Your task to perform on an android device: install app "Lyft - Rideshare, Bikes, Scooters & Transit" Image 0: 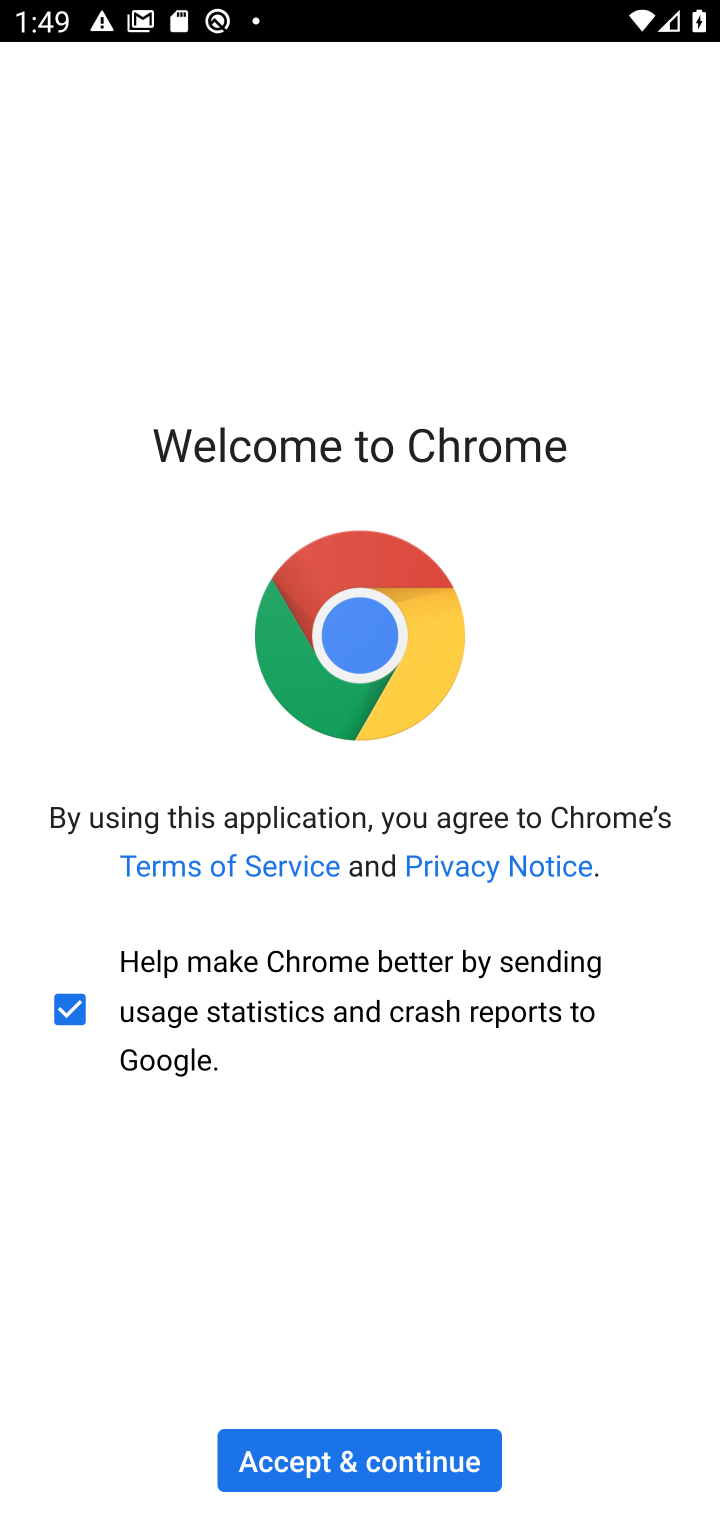
Step 0: press home button
Your task to perform on an android device: install app "Lyft - Rideshare, Bikes, Scooters & Transit" Image 1: 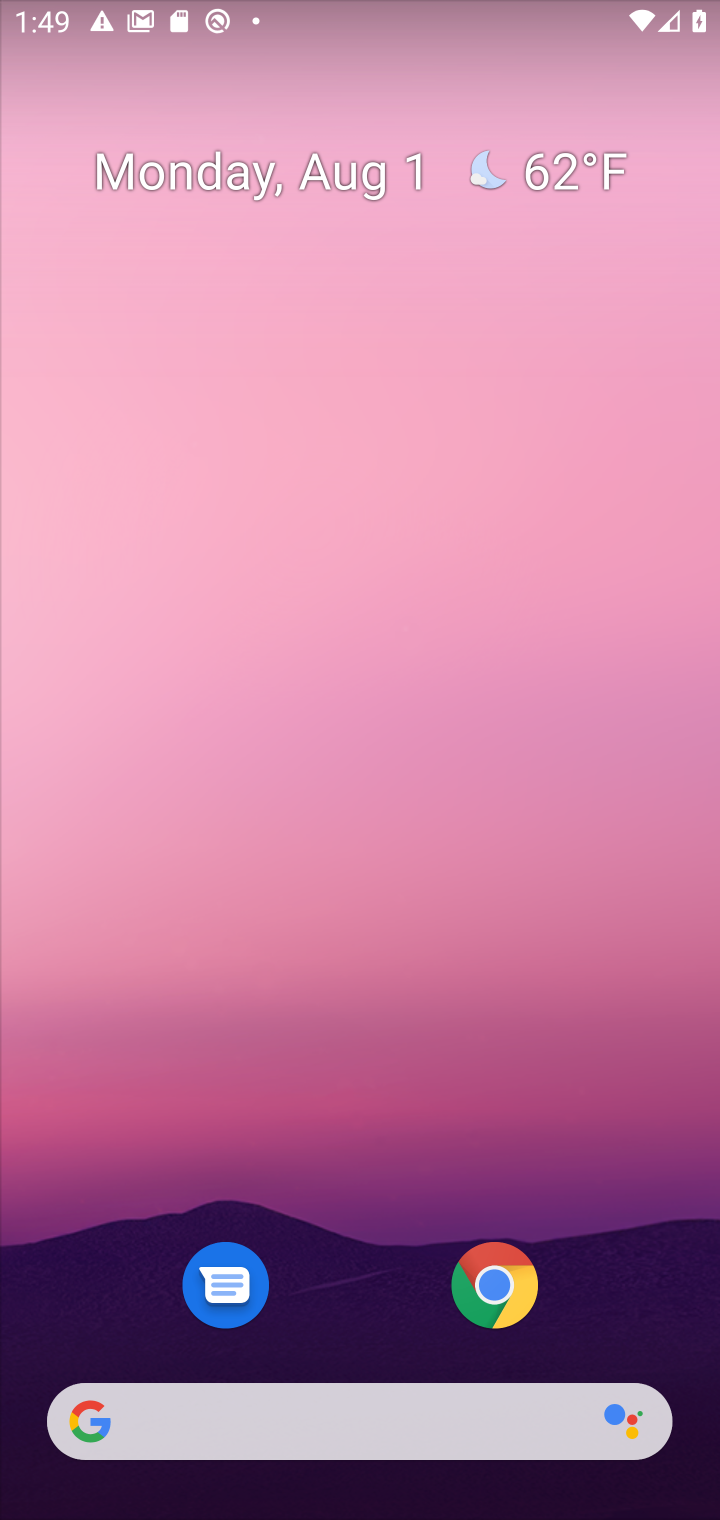
Step 1: drag from (398, 646) to (619, 0)
Your task to perform on an android device: install app "Lyft - Rideshare, Bikes, Scooters & Transit" Image 2: 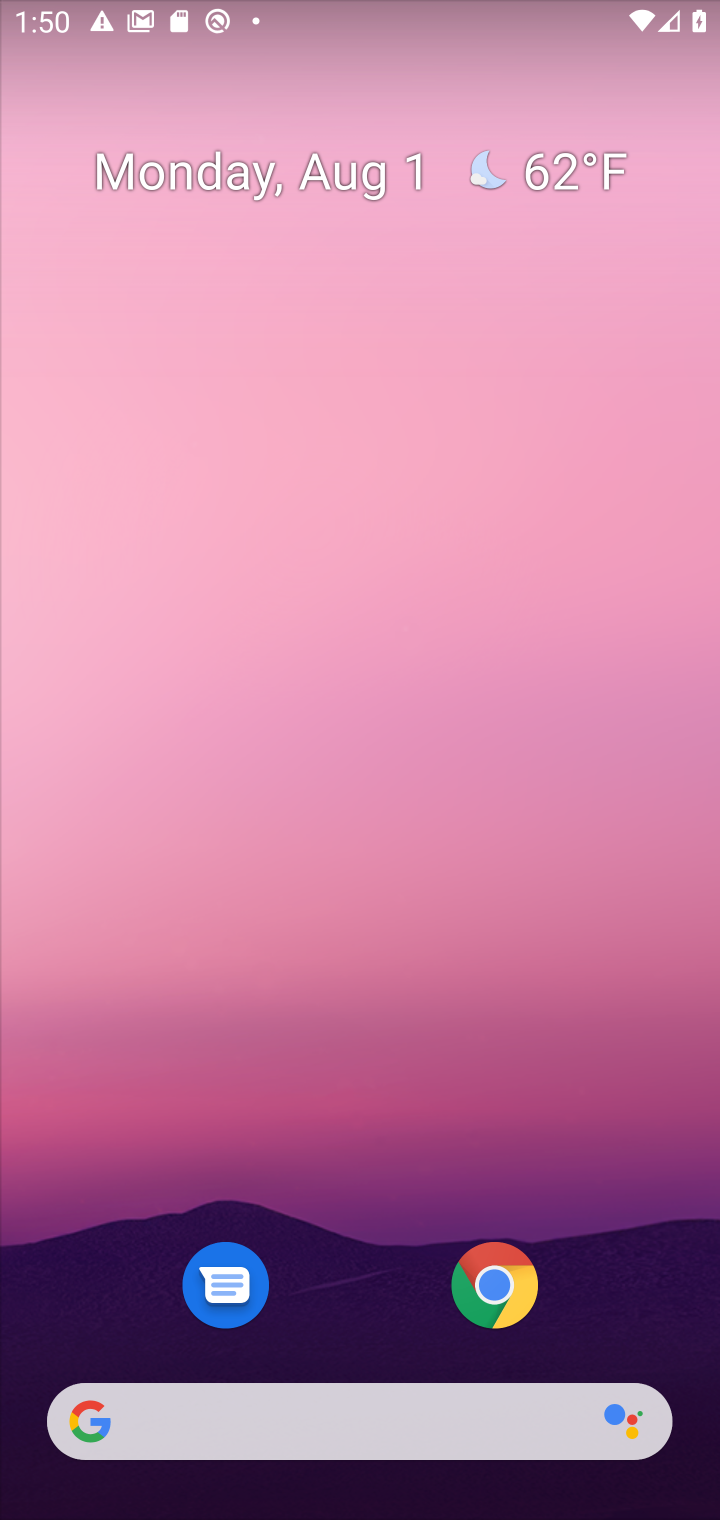
Step 2: drag from (327, 1355) to (384, 136)
Your task to perform on an android device: install app "Lyft - Rideshare, Bikes, Scooters & Transit" Image 3: 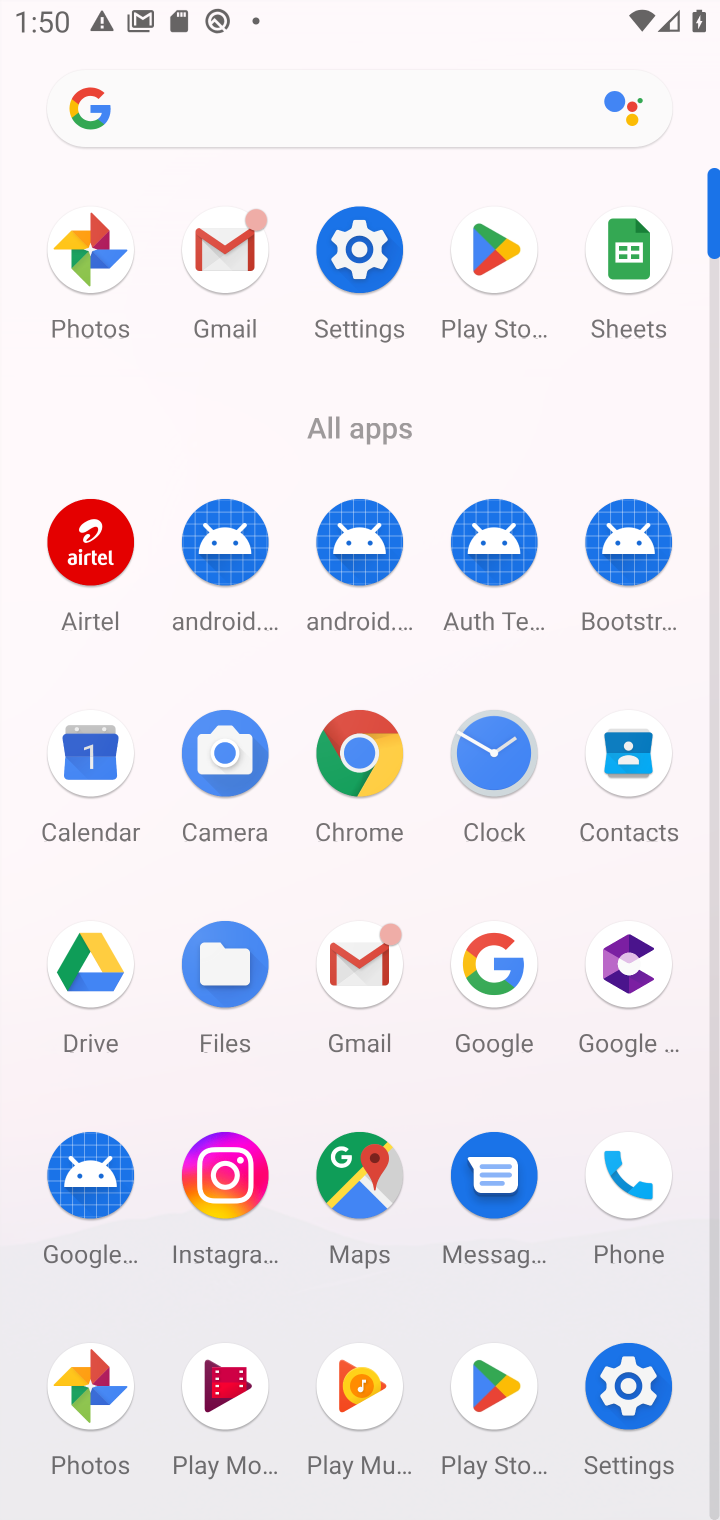
Step 3: click (485, 261)
Your task to perform on an android device: install app "Lyft - Rideshare, Bikes, Scooters & Transit" Image 4: 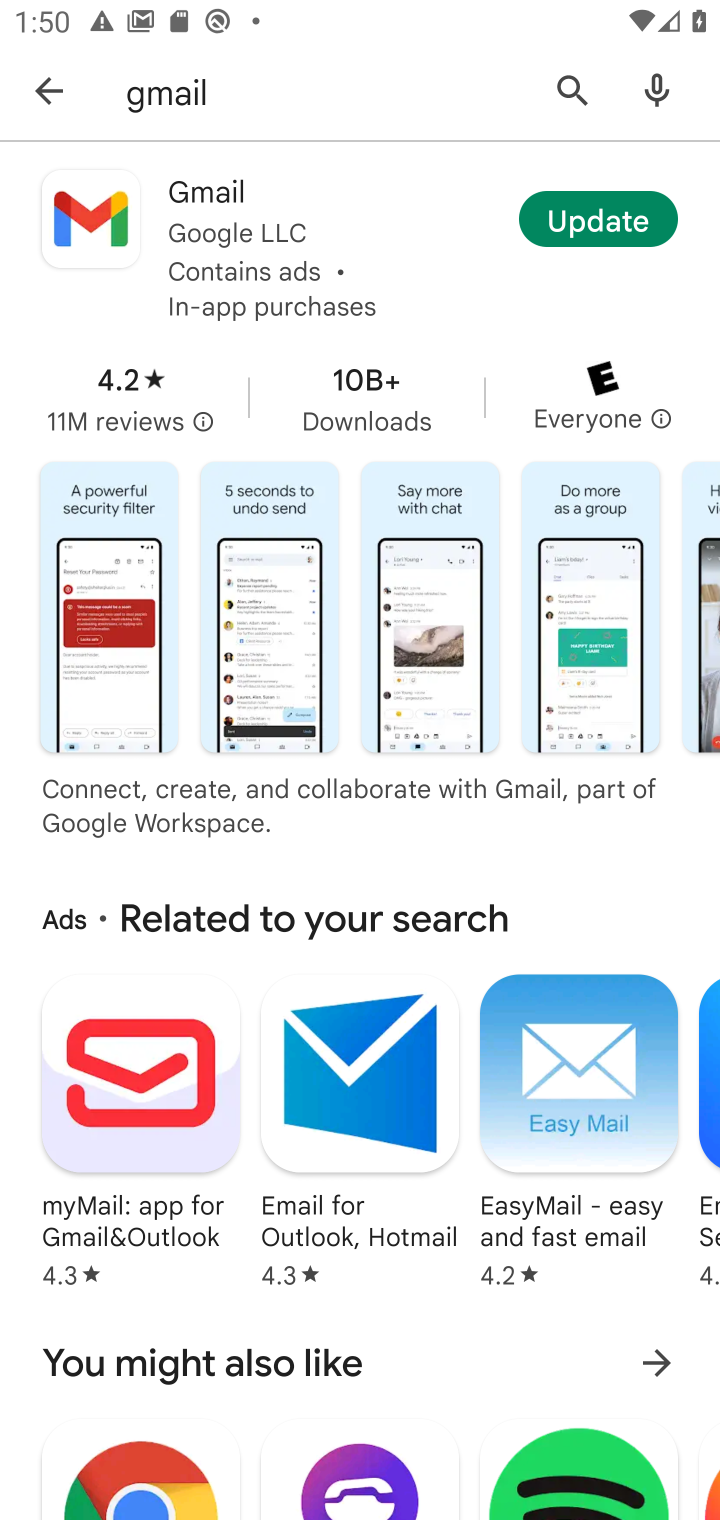
Step 4: click (563, 84)
Your task to perform on an android device: install app "Lyft - Rideshare, Bikes, Scooters & Transit" Image 5: 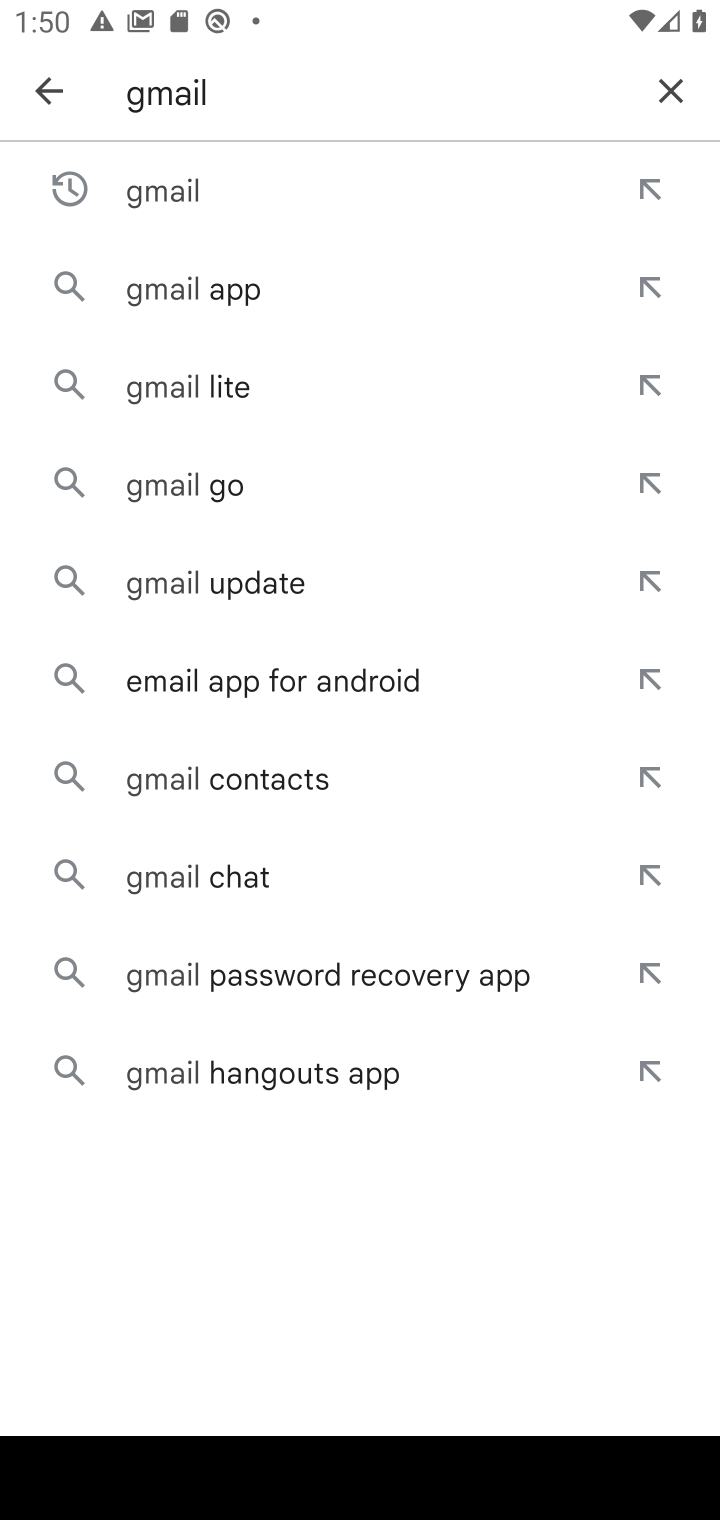
Step 5: click (675, 96)
Your task to perform on an android device: install app "Lyft - Rideshare, Bikes, Scooters & Transit" Image 6: 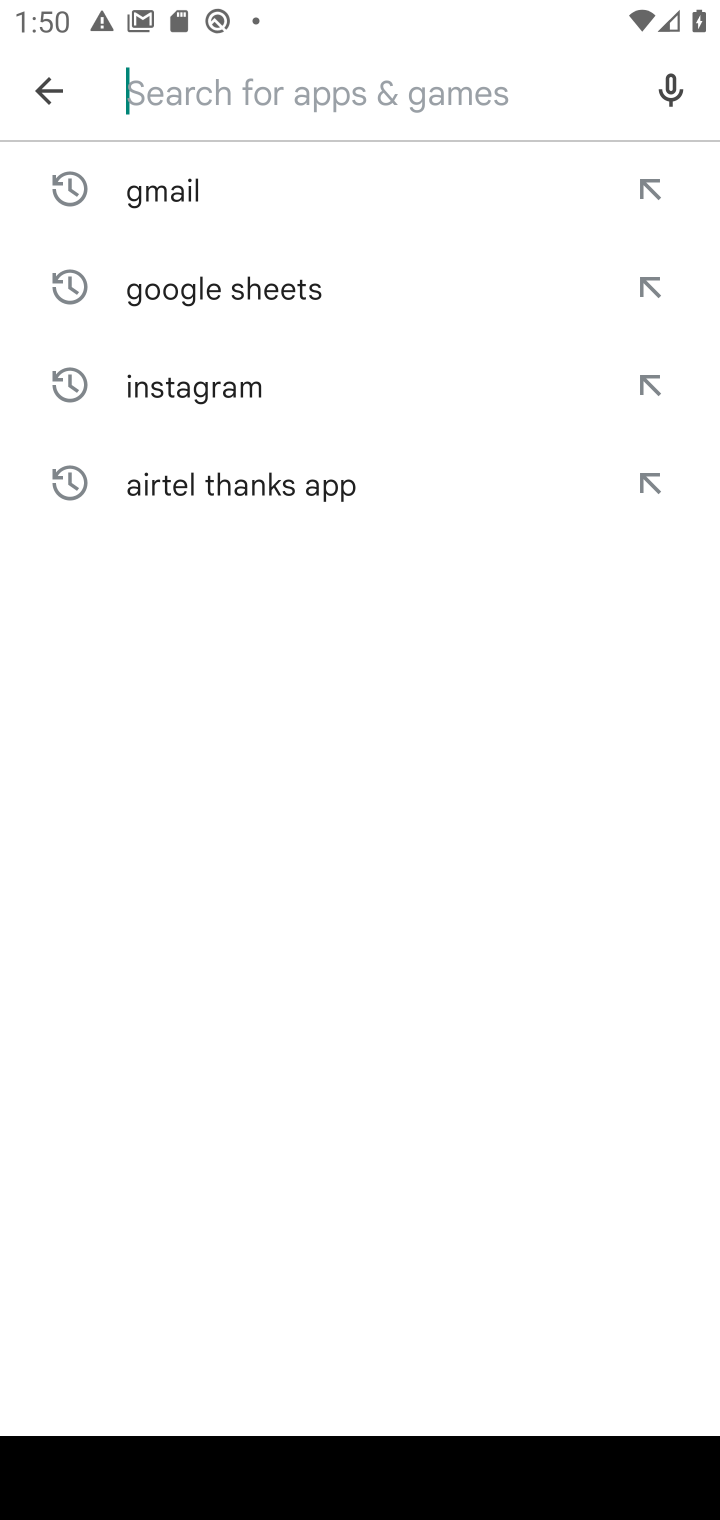
Step 6: type "Lyft - Rideshare, Bikes, Scooters & Transit"
Your task to perform on an android device: install app "Lyft - Rideshare, Bikes, Scooters & Transit" Image 7: 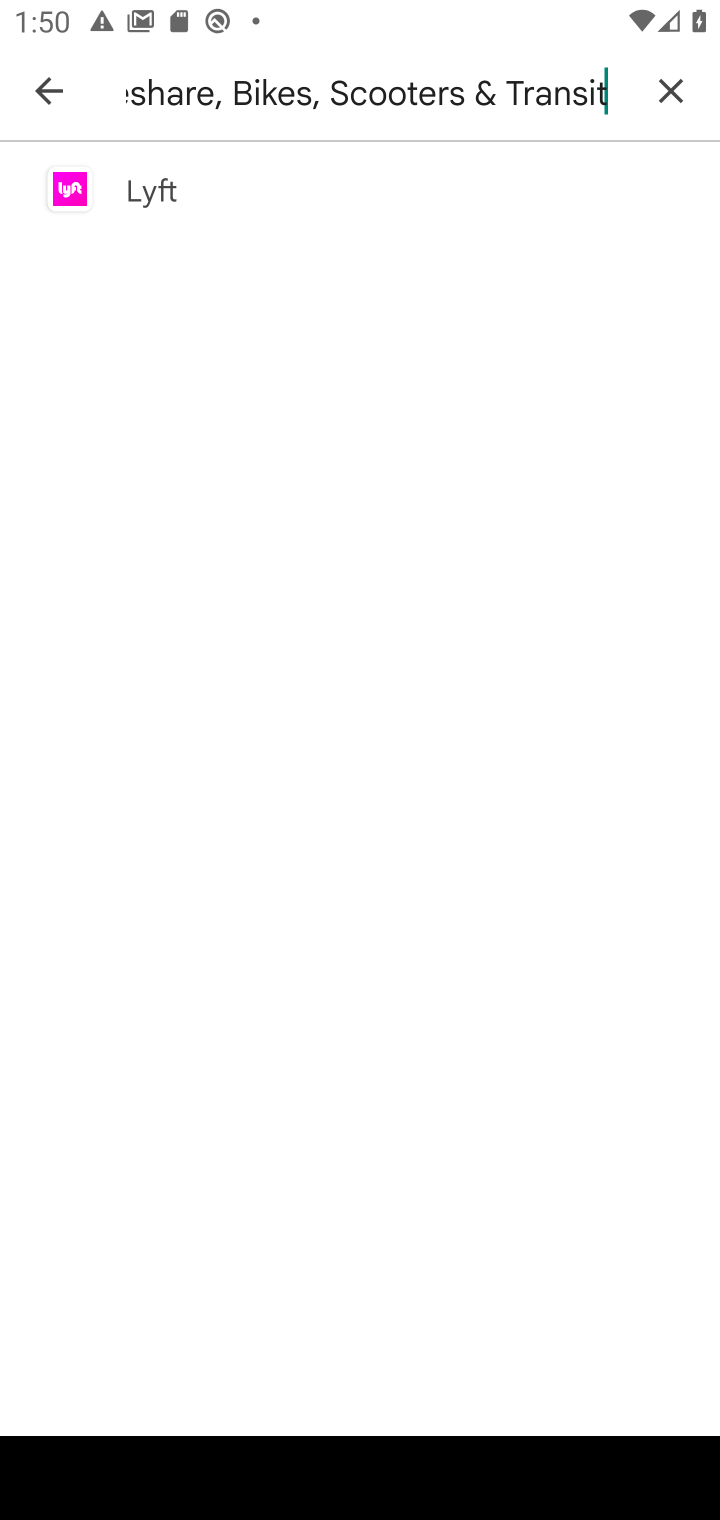
Step 7: click (132, 194)
Your task to perform on an android device: install app "Lyft - Rideshare, Bikes, Scooters & Transit" Image 8: 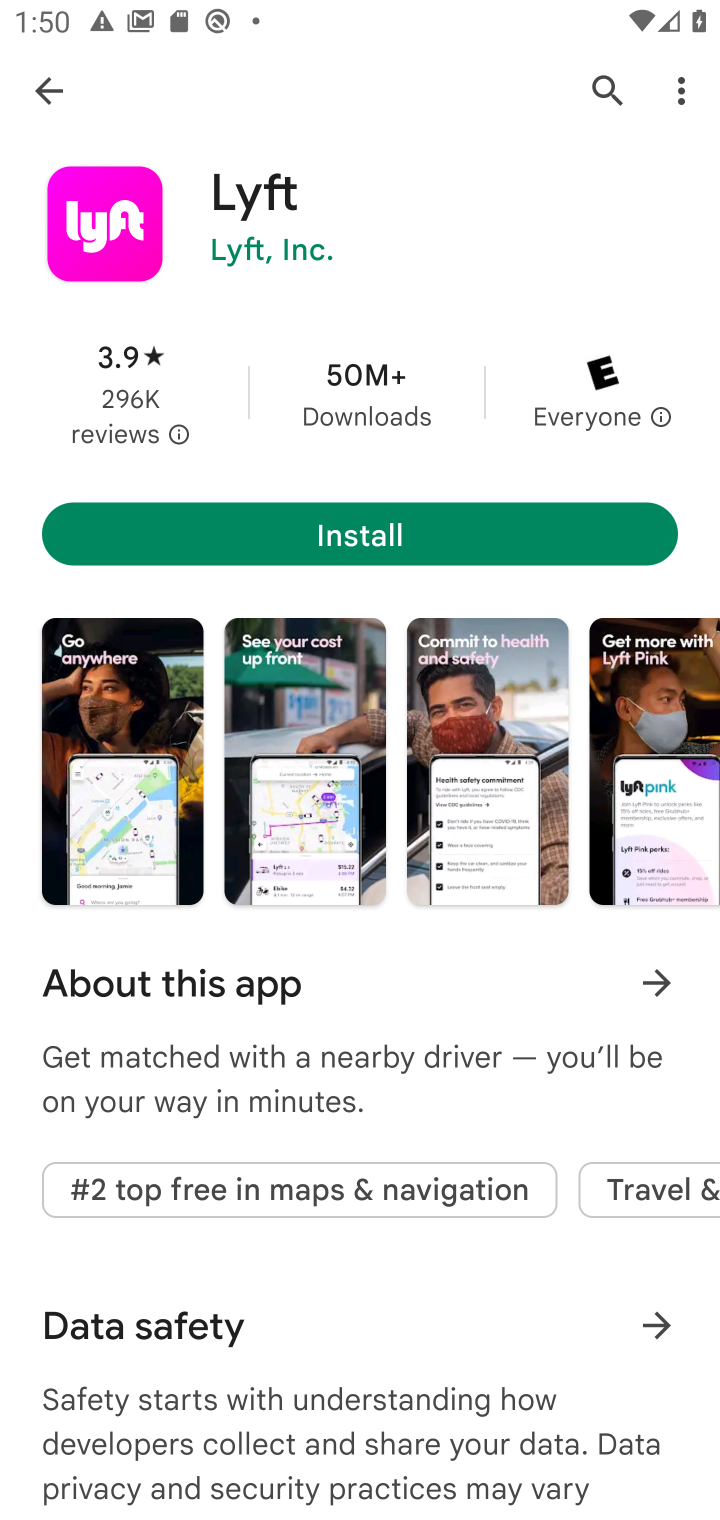
Step 8: click (318, 501)
Your task to perform on an android device: install app "Lyft - Rideshare, Bikes, Scooters & Transit" Image 9: 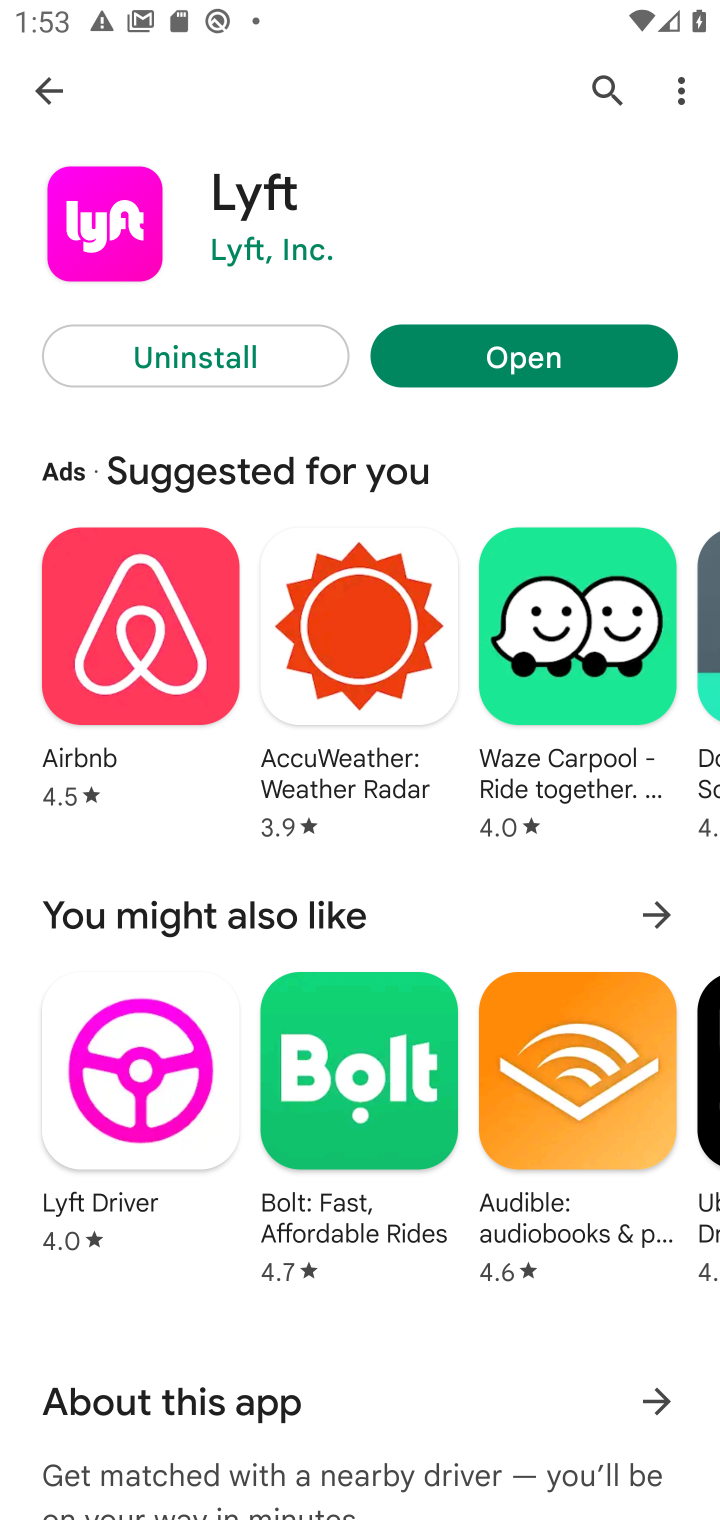
Step 9: click (607, 349)
Your task to perform on an android device: install app "Lyft - Rideshare, Bikes, Scooters & Transit" Image 10: 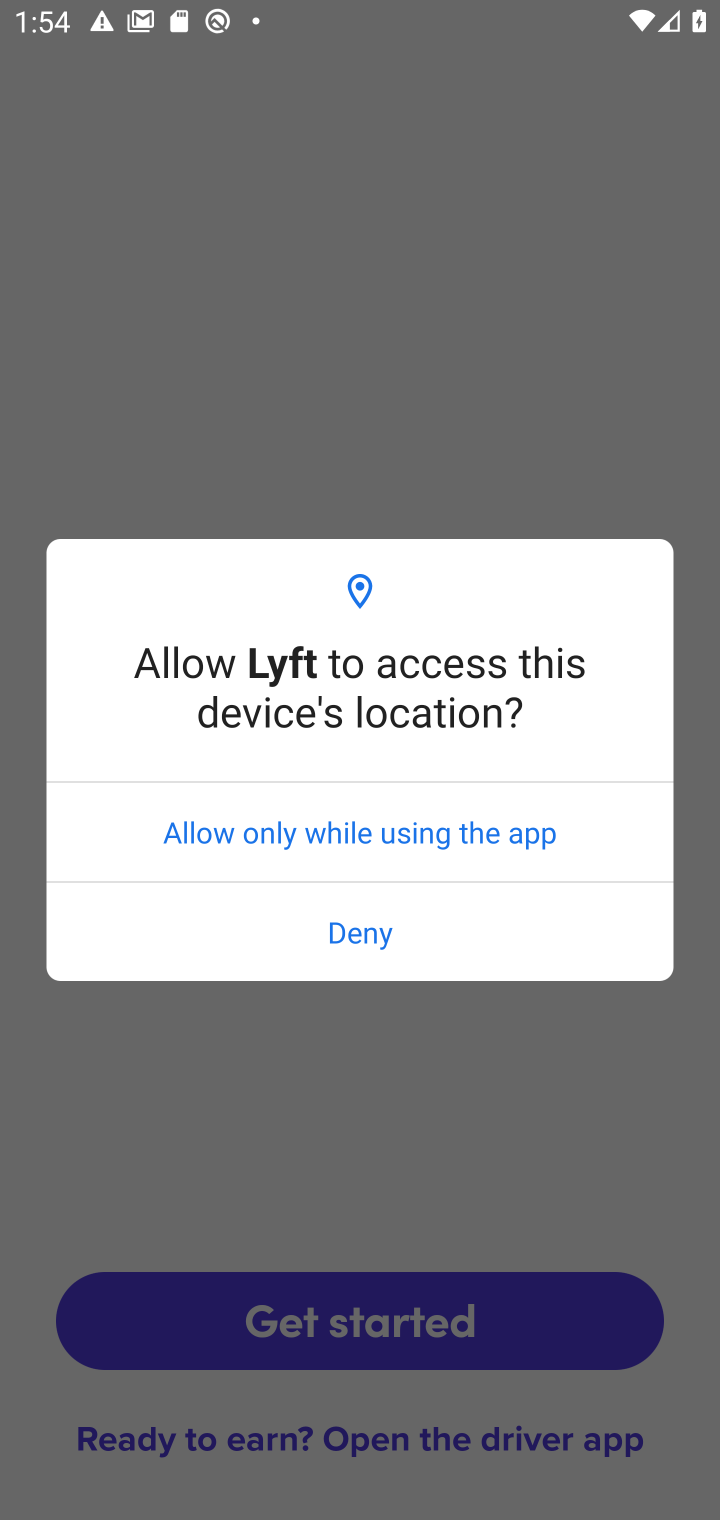
Step 10: task complete